Your task to perform on an android device: Add razer blade to the cart on target.com, then select checkout. Image 0: 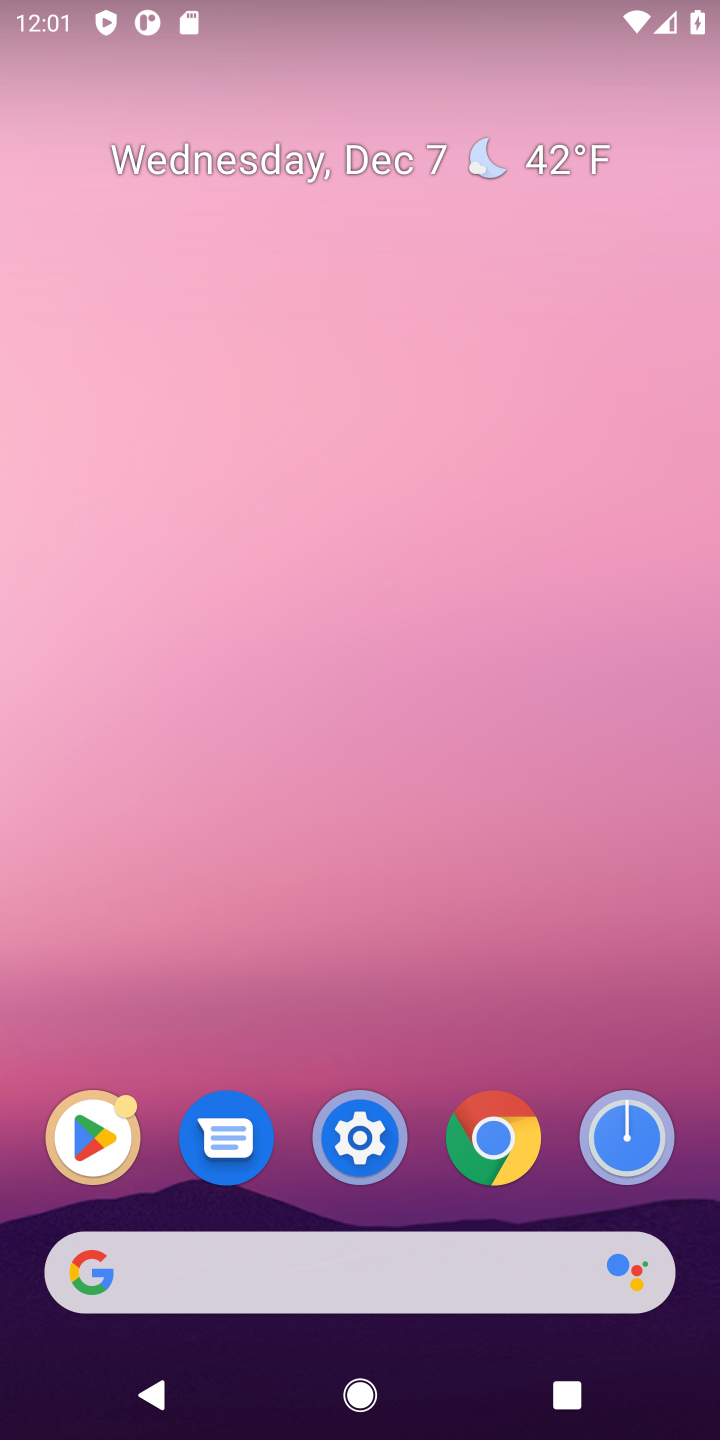
Step 0: click (464, 1246)
Your task to perform on an android device: Add razer blade to the cart on target.com, then select checkout. Image 1: 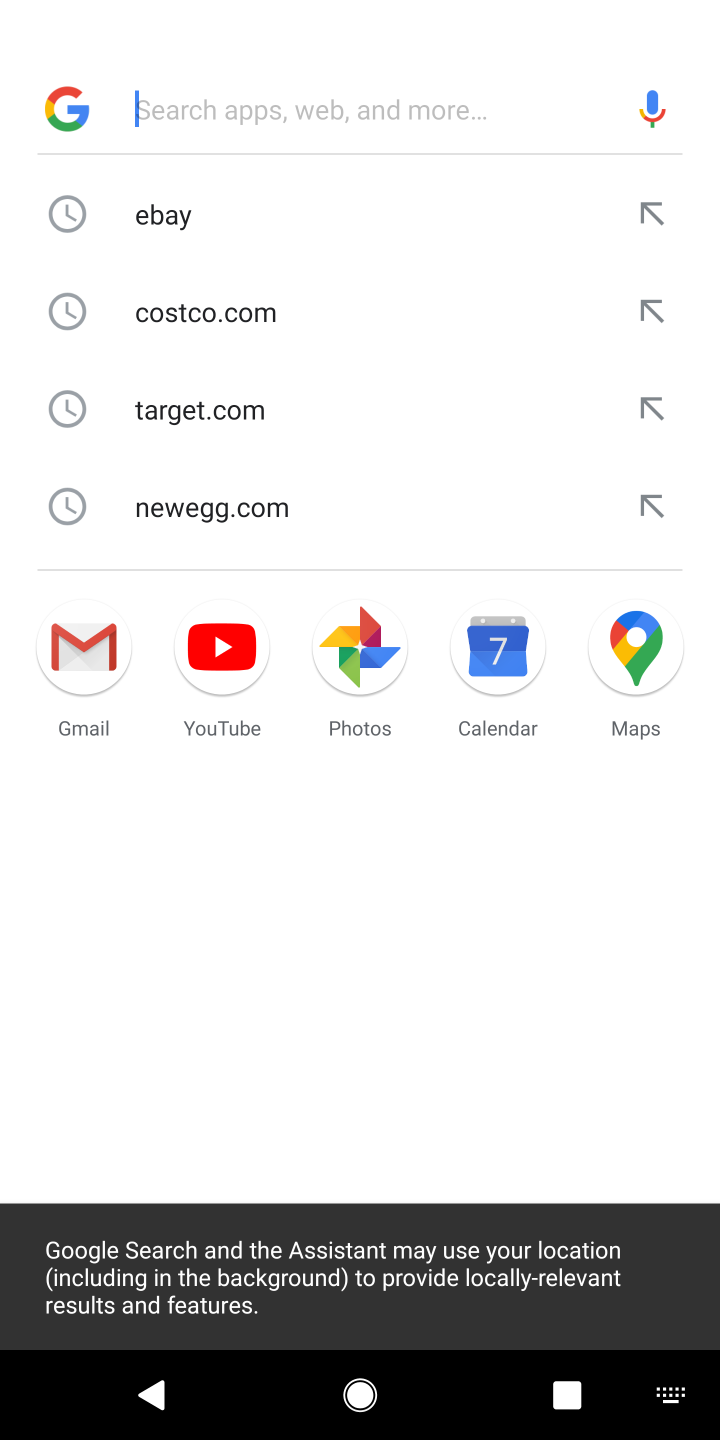
Step 1: click (179, 401)
Your task to perform on an android device: Add razer blade to the cart on target.com, then select checkout. Image 2: 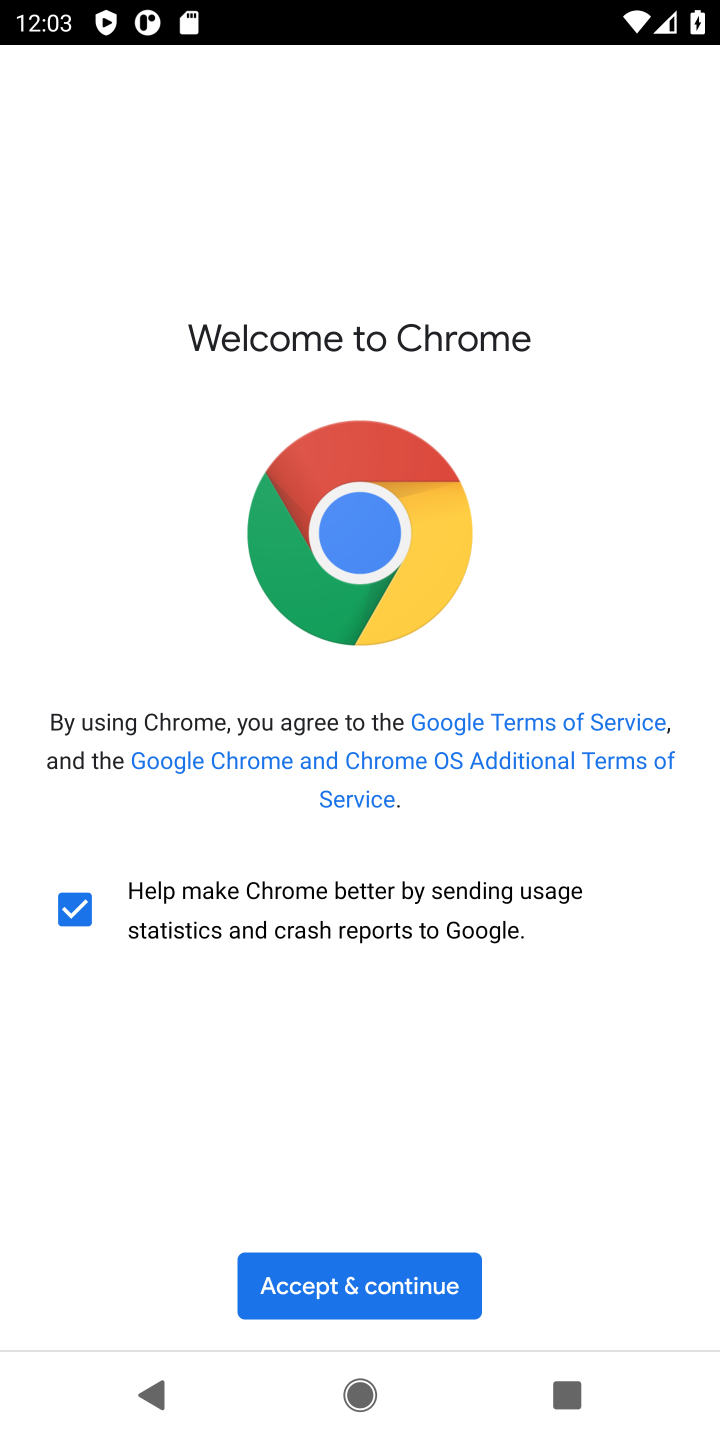
Step 2: click (313, 1275)
Your task to perform on an android device: Add razer blade to the cart on target.com, then select checkout. Image 3: 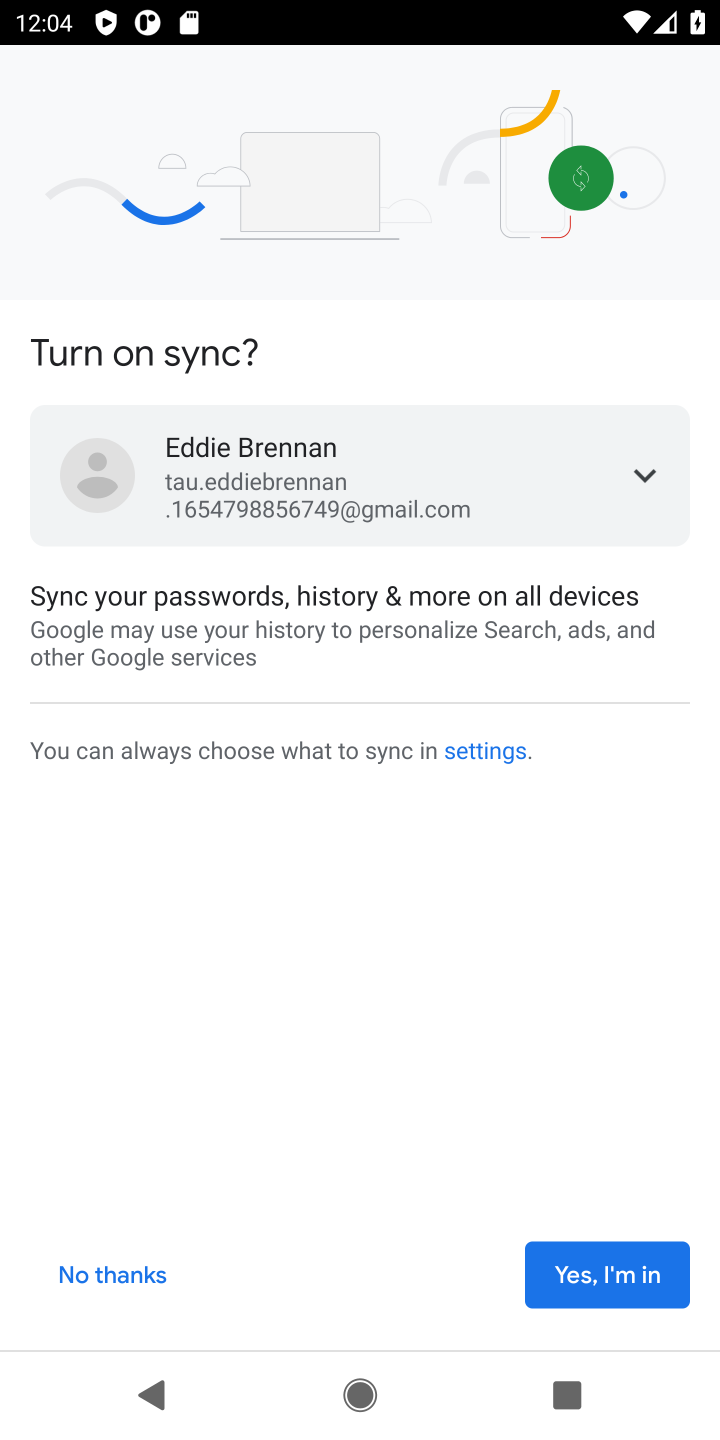
Step 3: click (598, 1307)
Your task to perform on an android device: Add razer blade to the cart on target.com, then select checkout. Image 4: 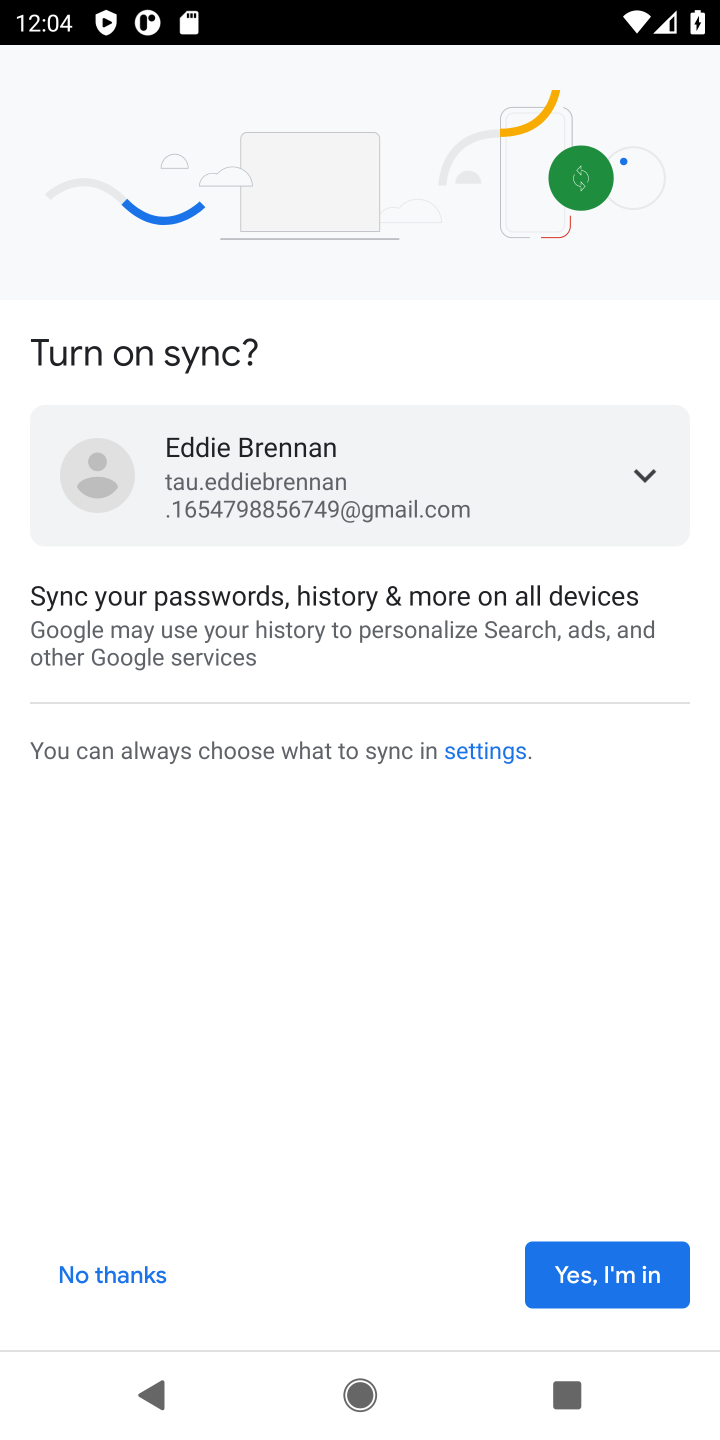
Step 4: task complete